Your task to perform on an android device: Open Wikipedia Image 0: 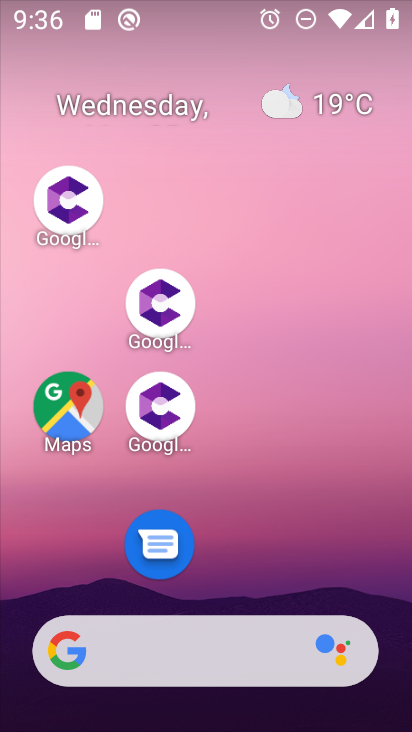
Step 0: drag from (280, 565) to (199, 25)
Your task to perform on an android device: Open Wikipedia Image 1: 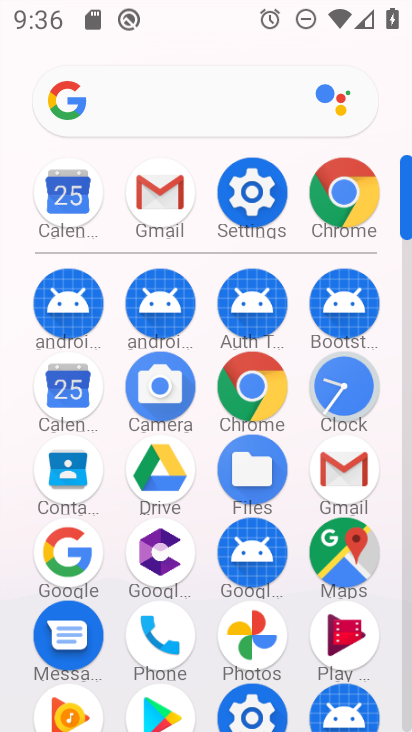
Step 1: click (344, 200)
Your task to perform on an android device: Open Wikipedia Image 2: 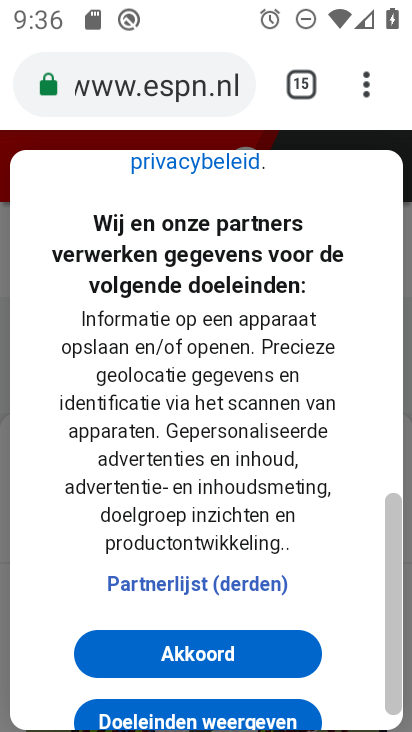
Step 2: click (366, 91)
Your task to perform on an android device: Open Wikipedia Image 3: 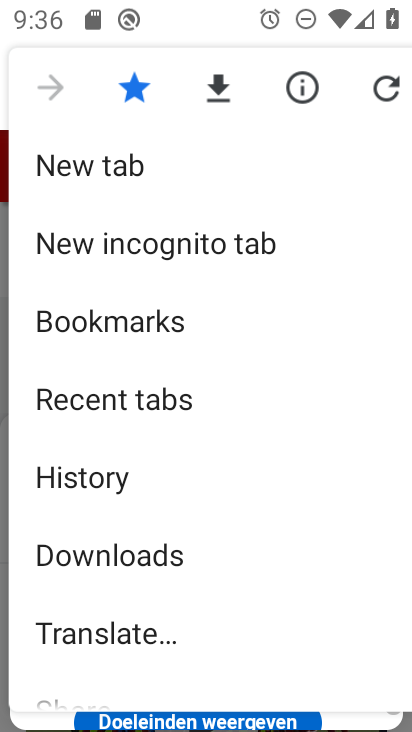
Step 3: click (112, 176)
Your task to perform on an android device: Open Wikipedia Image 4: 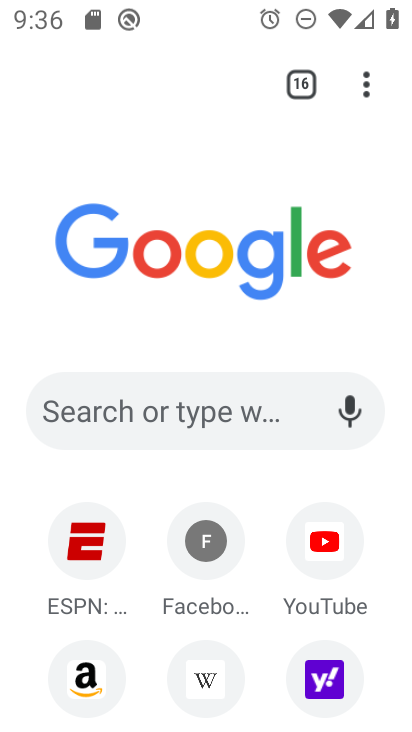
Step 4: click (208, 669)
Your task to perform on an android device: Open Wikipedia Image 5: 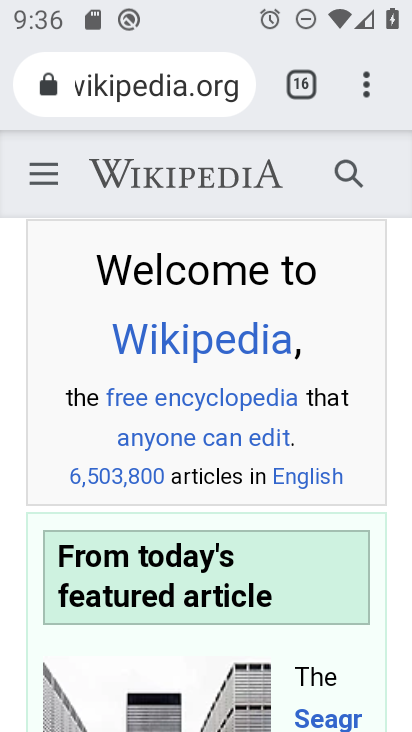
Step 5: task complete